Your task to perform on an android device: Open Google Maps and go to "Timeline" Image 0: 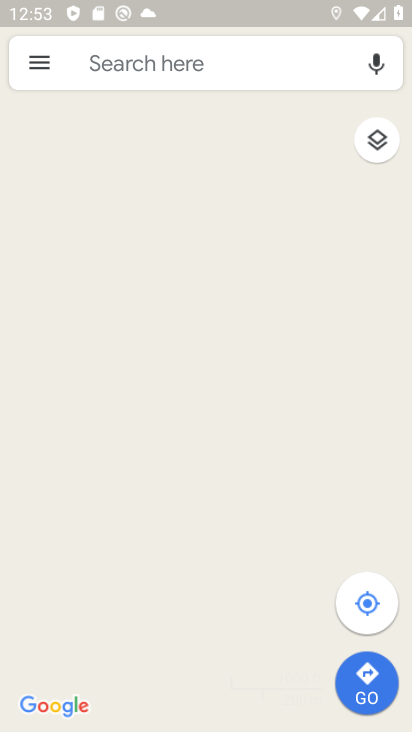
Step 0: press home button
Your task to perform on an android device: Open Google Maps and go to "Timeline" Image 1: 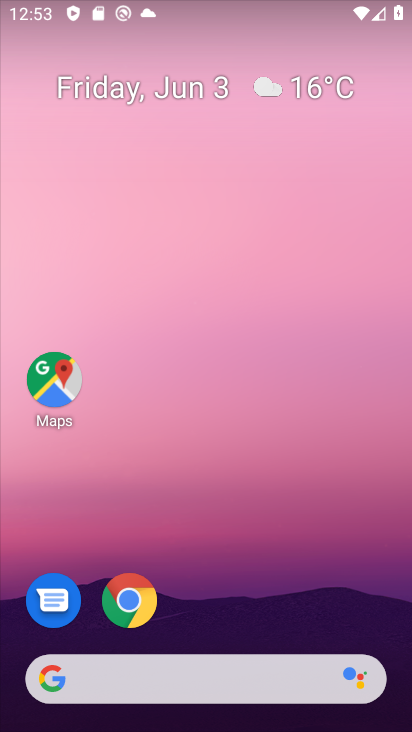
Step 1: click (63, 384)
Your task to perform on an android device: Open Google Maps and go to "Timeline" Image 2: 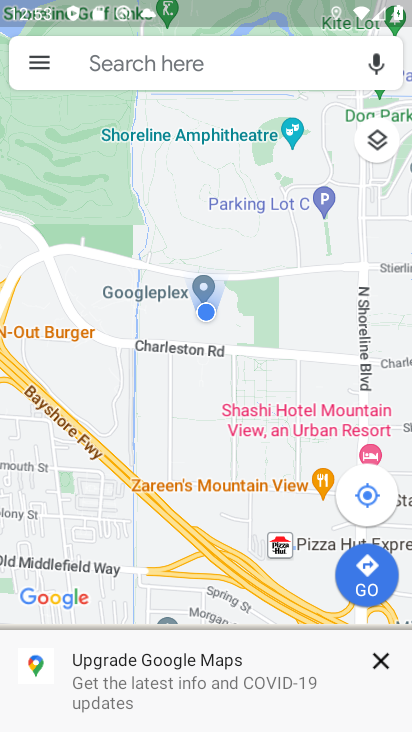
Step 2: click (37, 62)
Your task to perform on an android device: Open Google Maps and go to "Timeline" Image 3: 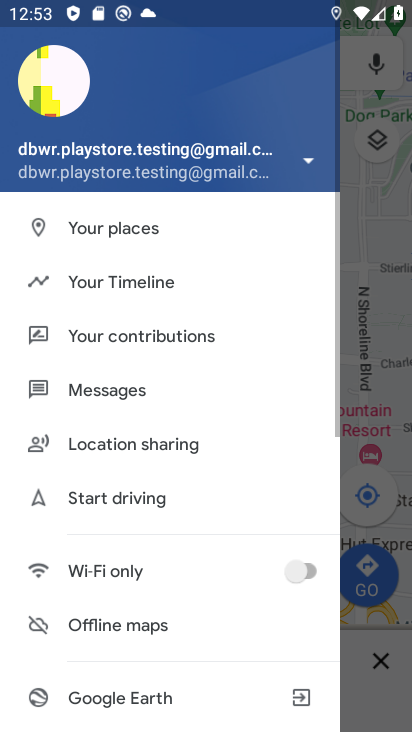
Step 3: click (167, 270)
Your task to perform on an android device: Open Google Maps and go to "Timeline" Image 4: 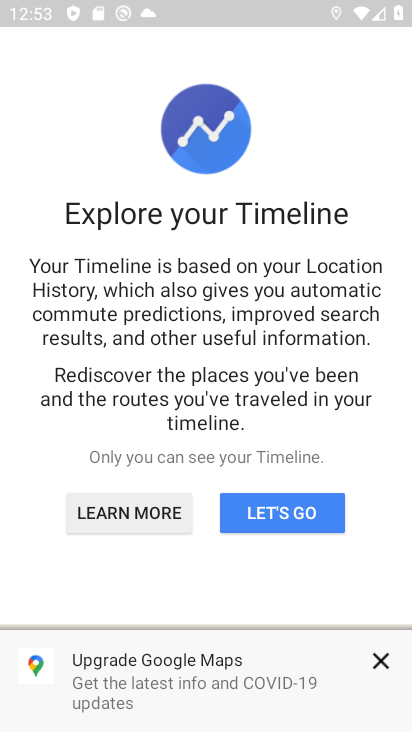
Step 4: click (298, 514)
Your task to perform on an android device: Open Google Maps and go to "Timeline" Image 5: 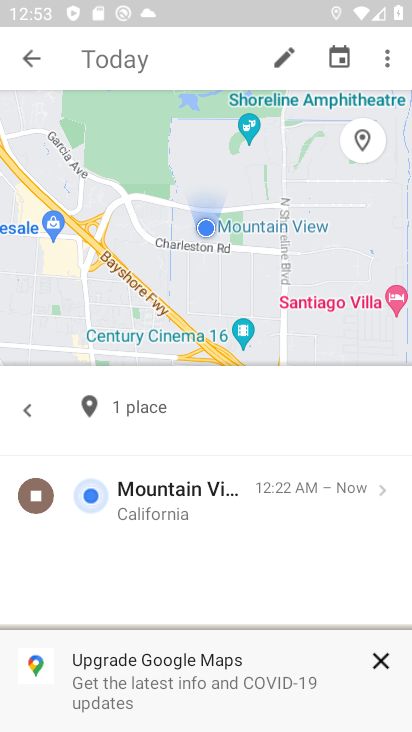
Step 5: task complete